Your task to perform on an android device: Go to location settings Image 0: 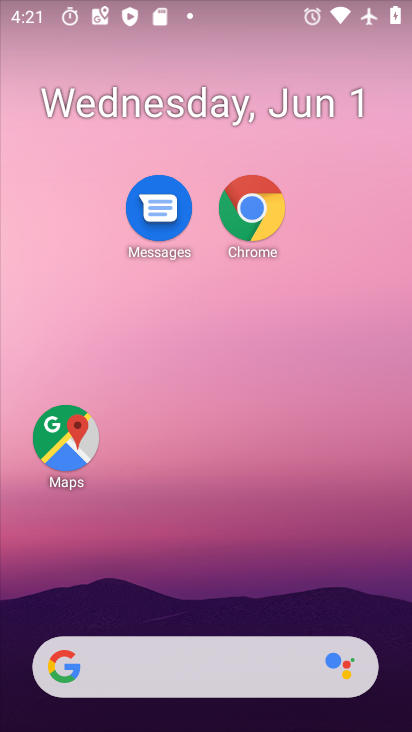
Step 0: drag from (212, 605) to (226, 274)
Your task to perform on an android device: Go to location settings Image 1: 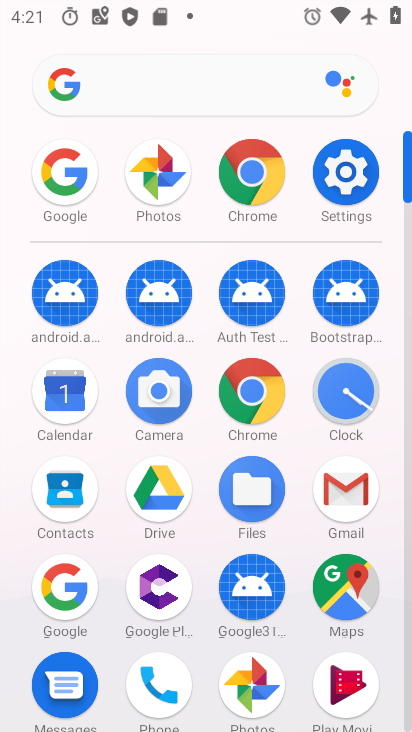
Step 1: click (334, 183)
Your task to perform on an android device: Go to location settings Image 2: 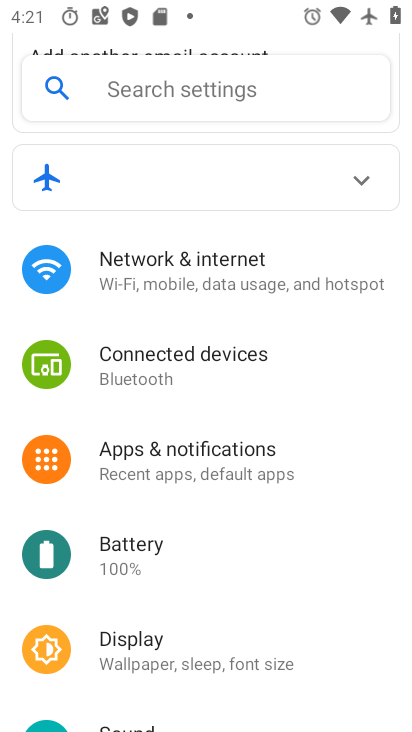
Step 2: drag from (196, 649) to (211, 338)
Your task to perform on an android device: Go to location settings Image 3: 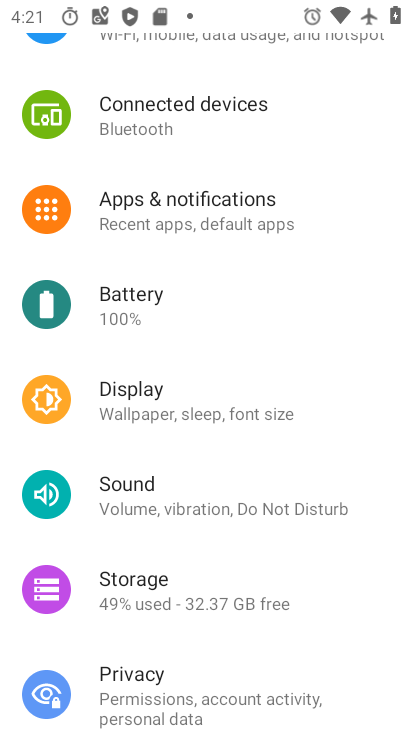
Step 3: drag from (190, 645) to (205, 353)
Your task to perform on an android device: Go to location settings Image 4: 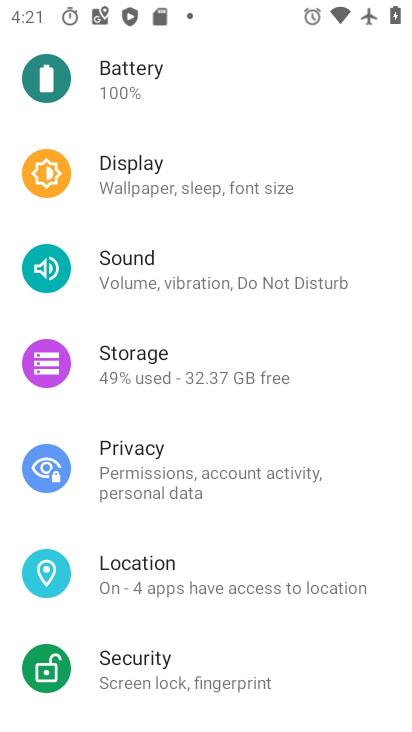
Step 4: click (182, 571)
Your task to perform on an android device: Go to location settings Image 5: 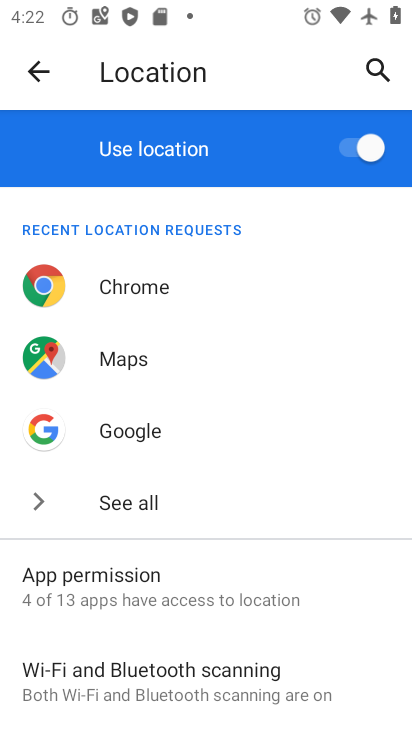
Step 5: task complete